Your task to perform on an android device: check storage Image 0: 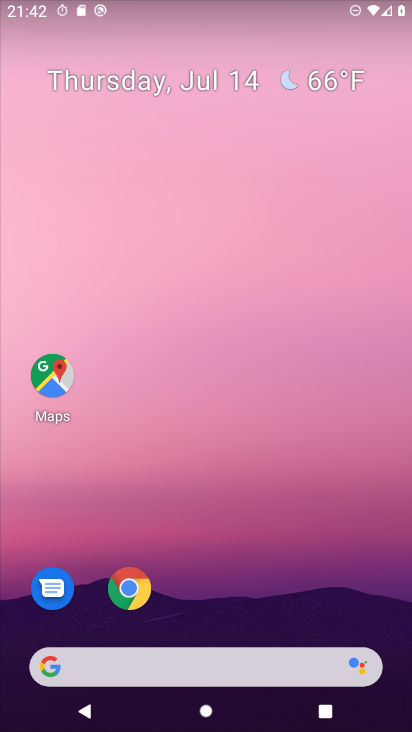
Step 0: drag from (333, 566) to (362, 0)
Your task to perform on an android device: check storage Image 1: 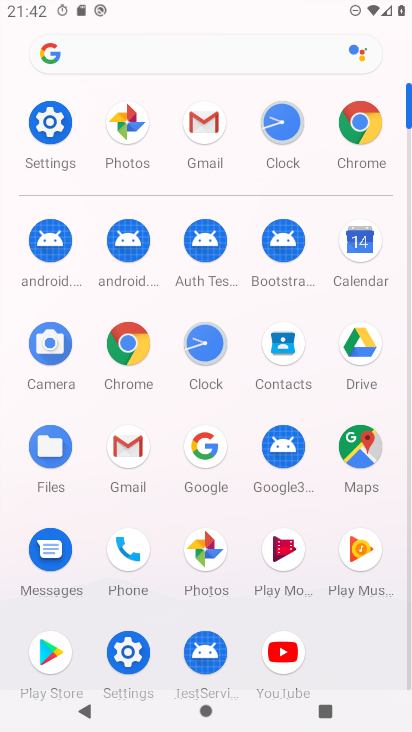
Step 1: click (52, 126)
Your task to perform on an android device: check storage Image 2: 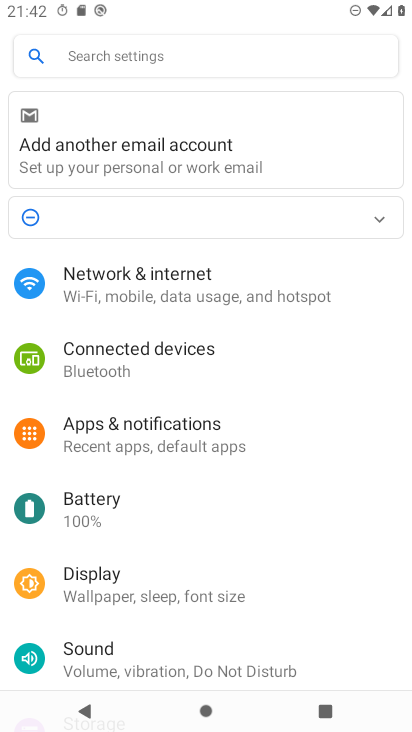
Step 2: drag from (350, 420) to (347, 306)
Your task to perform on an android device: check storage Image 3: 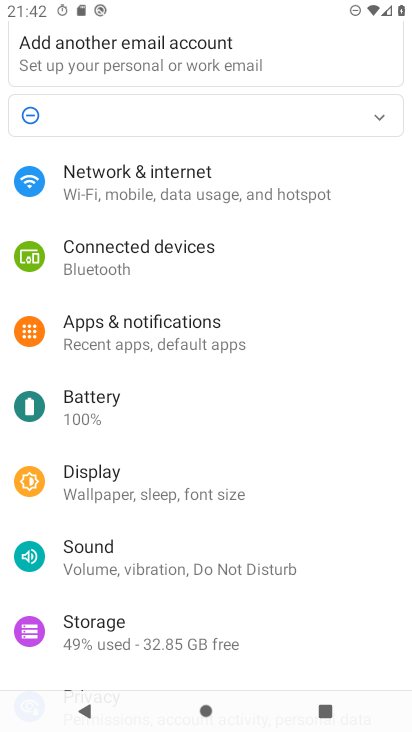
Step 3: drag from (342, 389) to (344, 260)
Your task to perform on an android device: check storage Image 4: 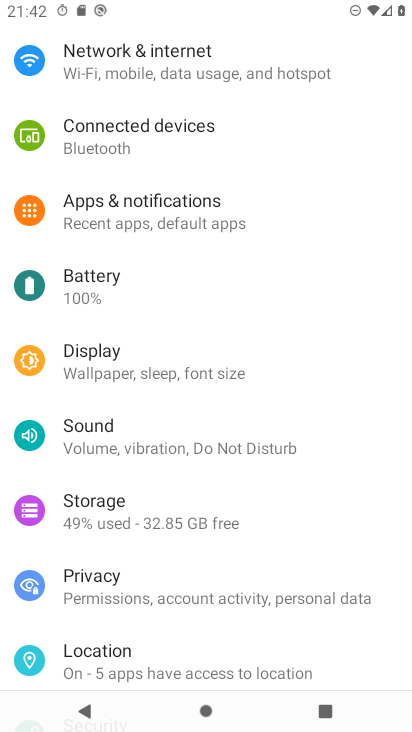
Step 4: drag from (345, 509) to (349, 379)
Your task to perform on an android device: check storage Image 5: 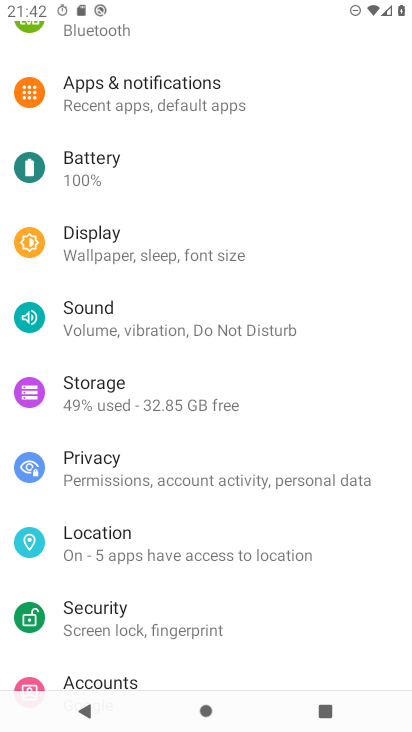
Step 5: drag from (360, 575) to (366, 442)
Your task to perform on an android device: check storage Image 6: 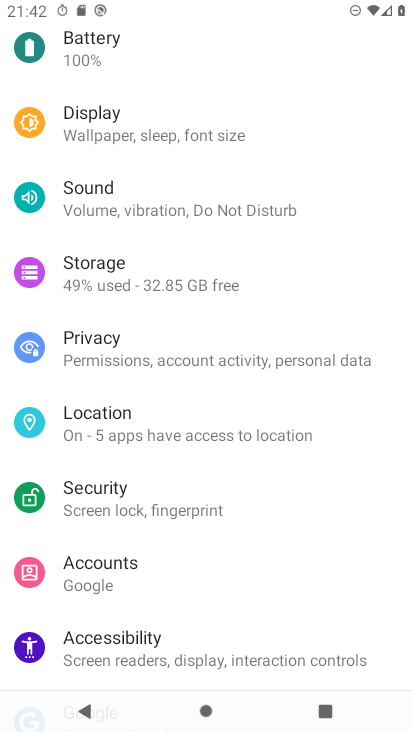
Step 6: drag from (356, 556) to (355, 440)
Your task to perform on an android device: check storage Image 7: 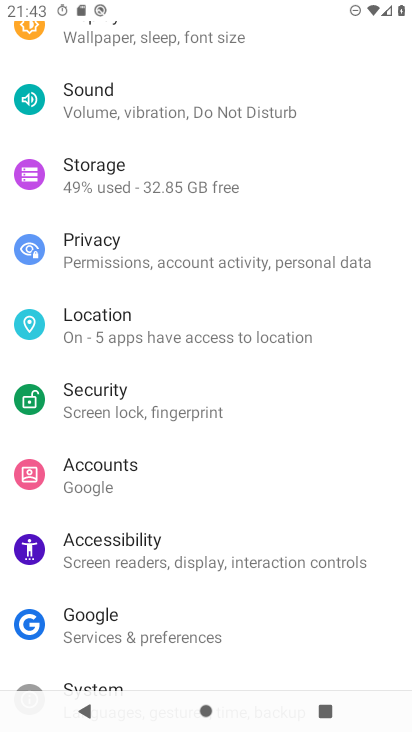
Step 7: drag from (363, 607) to (355, 388)
Your task to perform on an android device: check storage Image 8: 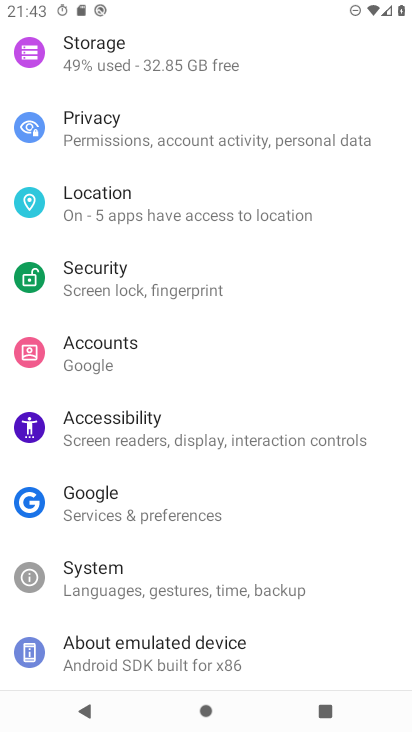
Step 8: drag from (346, 334) to (346, 436)
Your task to perform on an android device: check storage Image 9: 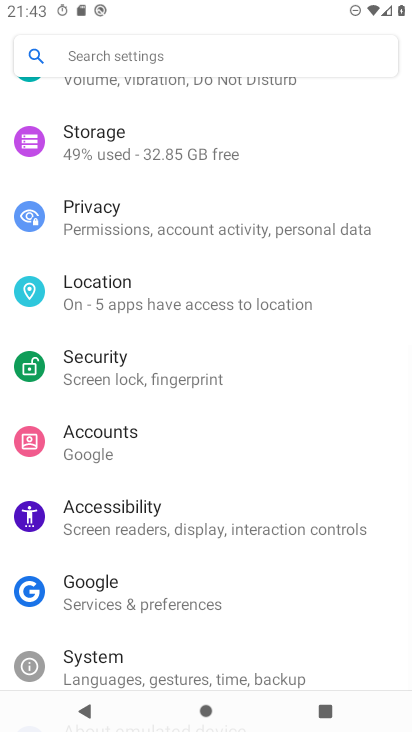
Step 9: drag from (346, 304) to (350, 440)
Your task to perform on an android device: check storage Image 10: 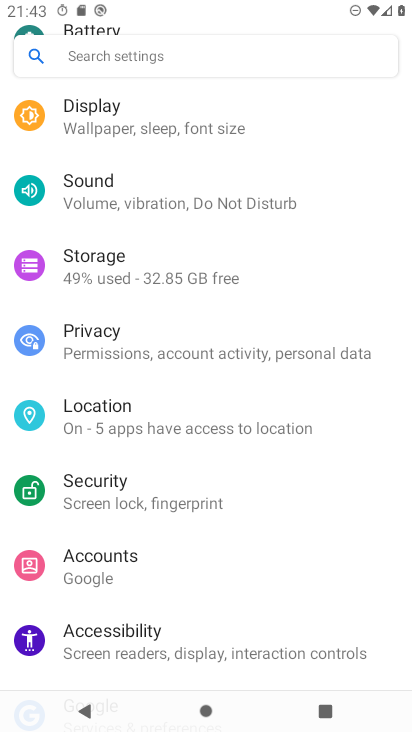
Step 10: drag from (353, 314) to (352, 483)
Your task to perform on an android device: check storage Image 11: 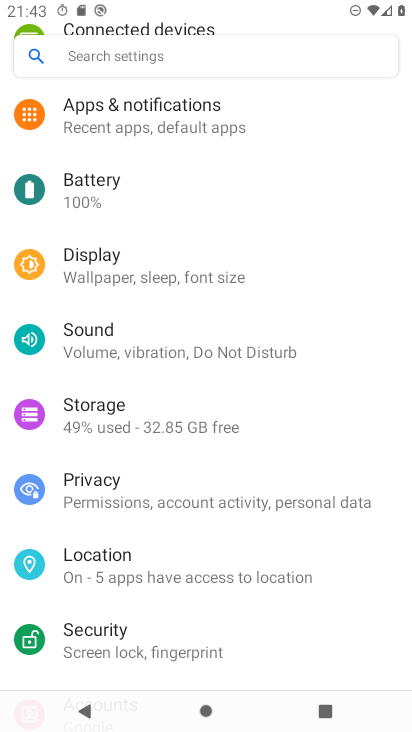
Step 11: drag from (350, 295) to (349, 472)
Your task to perform on an android device: check storage Image 12: 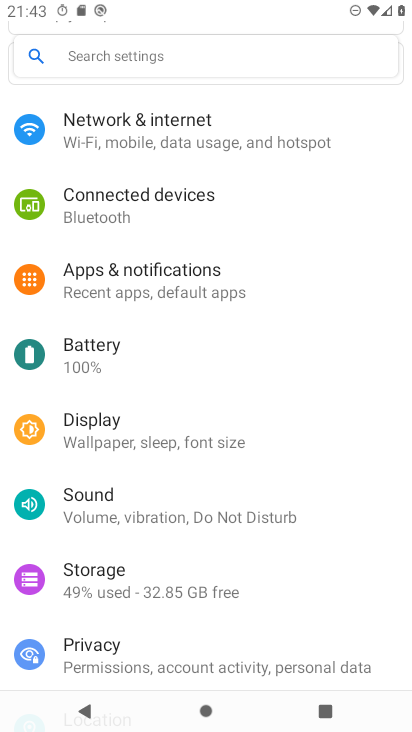
Step 12: click (257, 588)
Your task to perform on an android device: check storage Image 13: 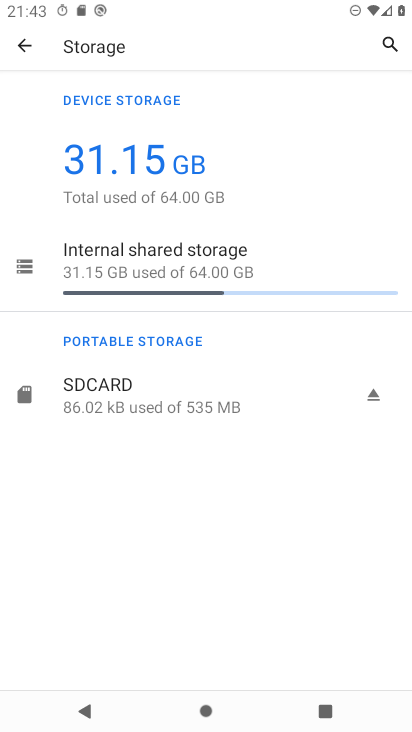
Step 13: task complete